Your task to perform on an android device: Find coffee shops on Maps Image 0: 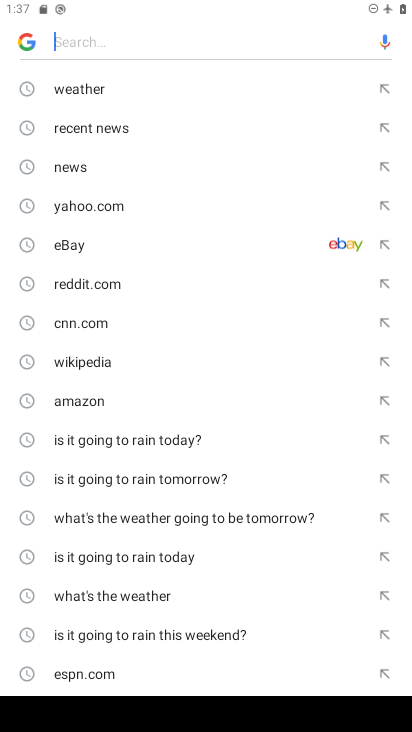
Step 0: press home button
Your task to perform on an android device: Find coffee shops on Maps Image 1: 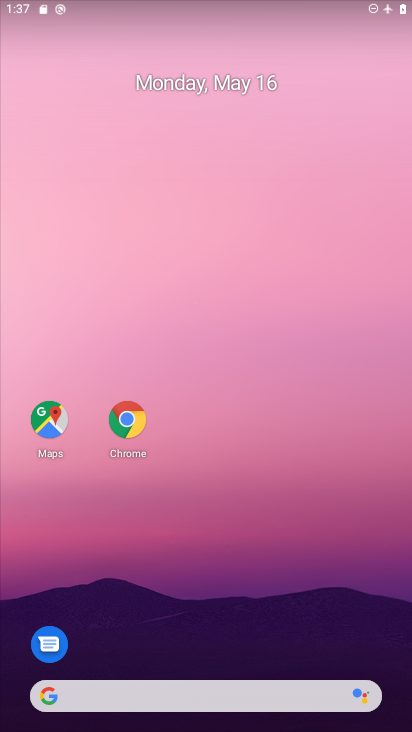
Step 1: drag from (193, 626) to (263, 0)
Your task to perform on an android device: Find coffee shops on Maps Image 2: 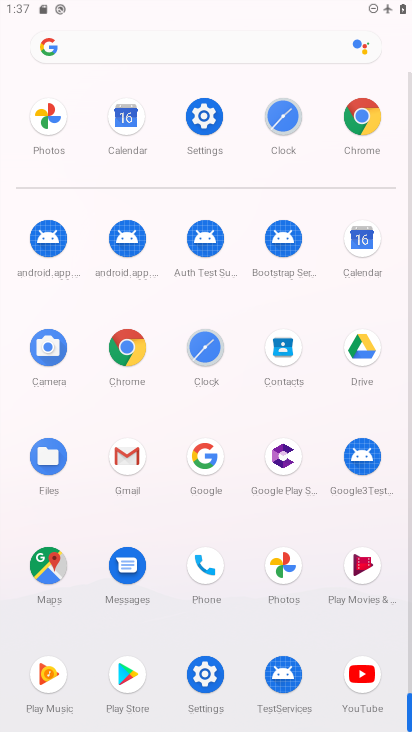
Step 2: click (48, 575)
Your task to perform on an android device: Find coffee shops on Maps Image 3: 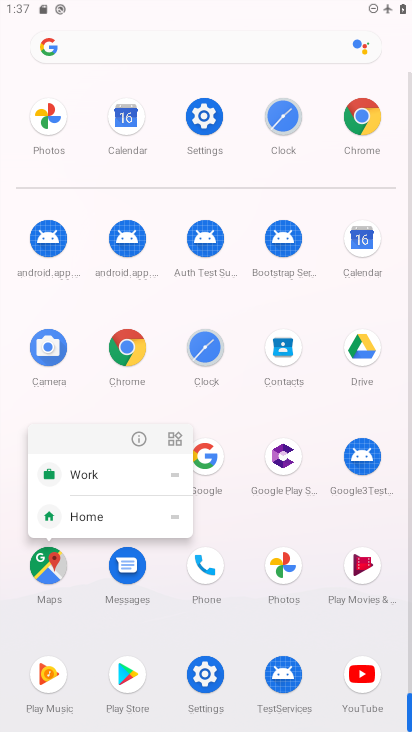
Step 3: click (142, 440)
Your task to perform on an android device: Find coffee shops on Maps Image 4: 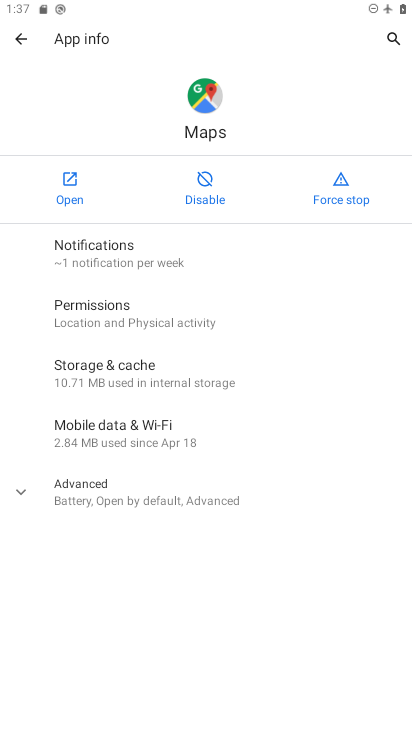
Step 4: click (73, 180)
Your task to perform on an android device: Find coffee shops on Maps Image 5: 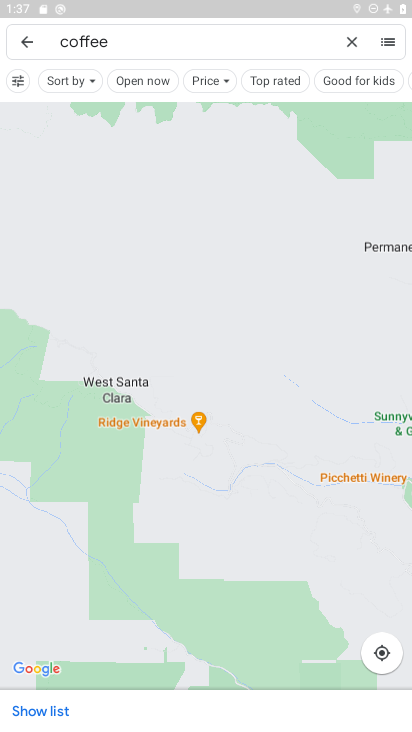
Step 5: click (19, 46)
Your task to perform on an android device: Find coffee shops on Maps Image 6: 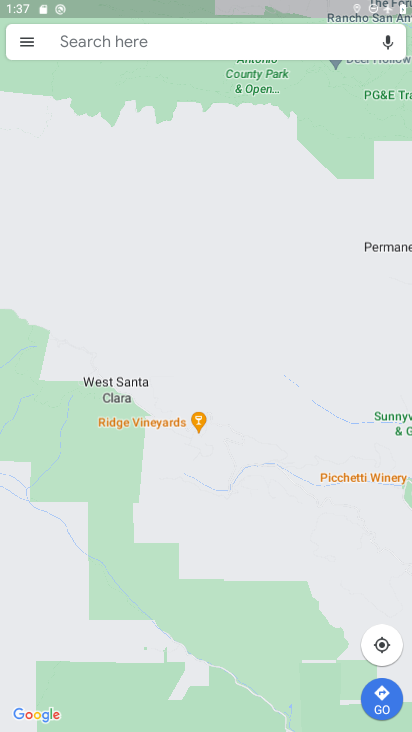
Step 6: click (29, 50)
Your task to perform on an android device: Find coffee shops on Maps Image 7: 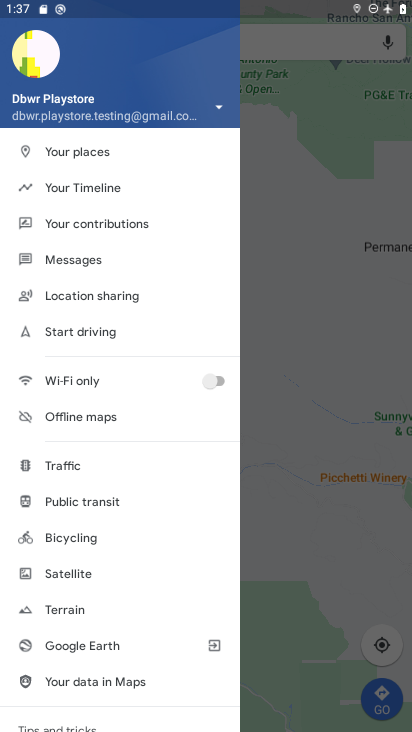
Step 7: click (290, 29)
Your task to perform on an android device: Find coffee shops on Maps Image 8: 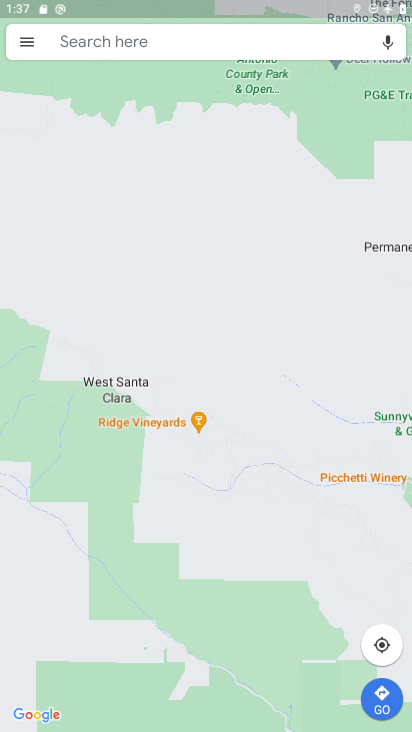
Step 8: click (228, 42)
Your task to perform on an android device: Find coffee shops on Maps Image 9: 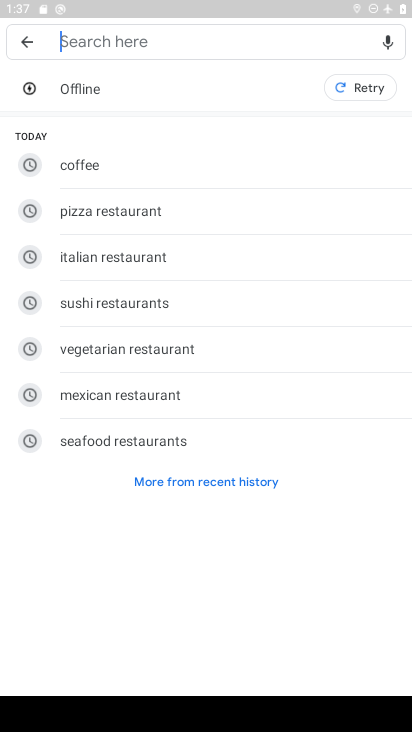
Step 9: click (71, 175)
Your task to perform on an android device: Find coffee shops on Maps Image 10: 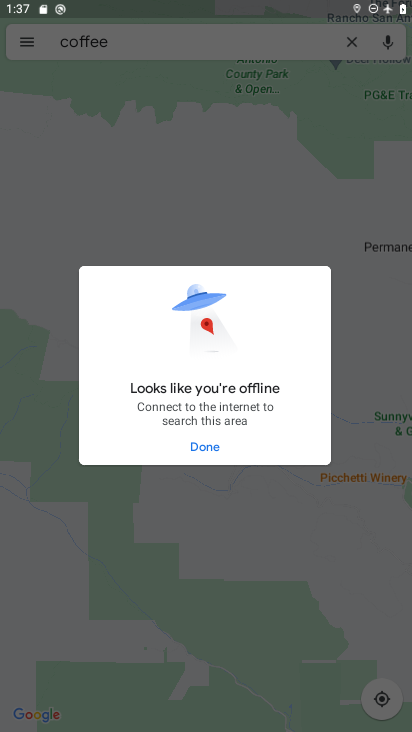
Step 10: click (193, 443)
Your task to perform on an android device: Find coffee shops on Maps Image 11: 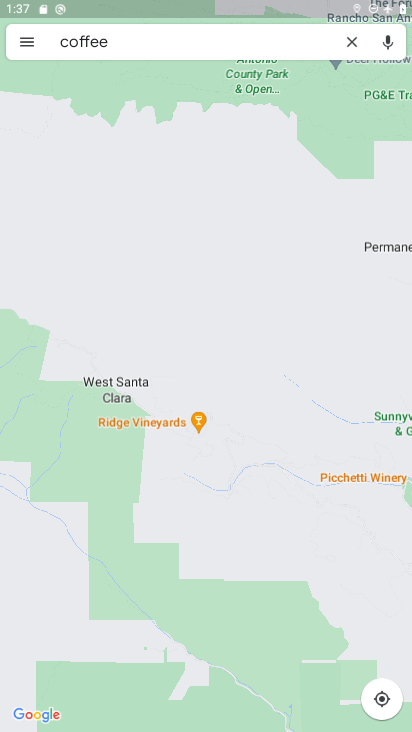
Step 11: task complete